Your task to perform on an android device: Is it going to rain this weekend? Image 0: 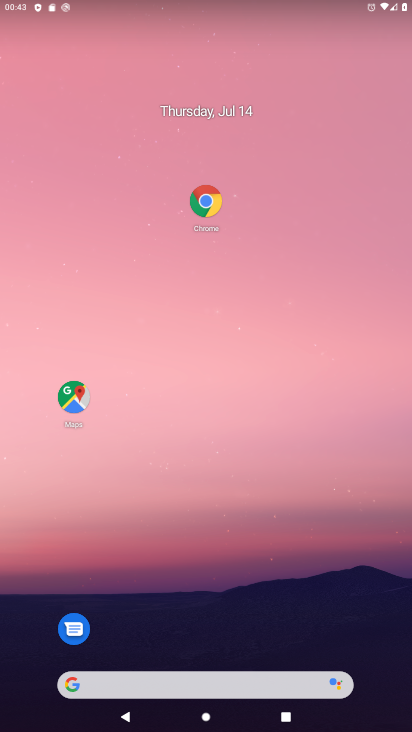
Step 0: drag from (215, 644) to (167, 45)
Your task to perform on an android device: Is it going to rain this weekend? Image 1: 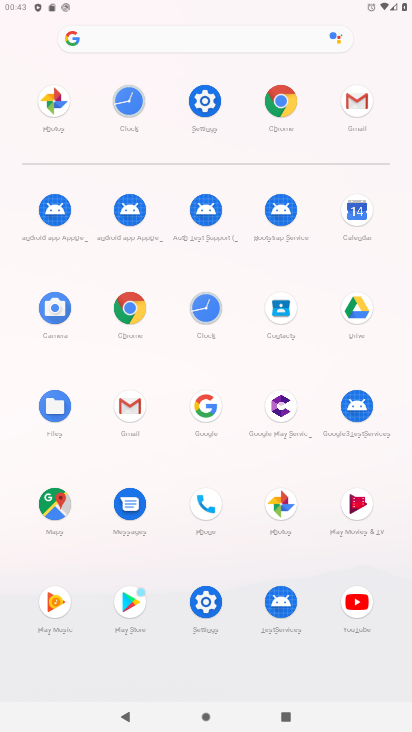
Step 1: click (200, 407)
Your task to perform on an android device: Is it going to rain this weekend? Image 2: 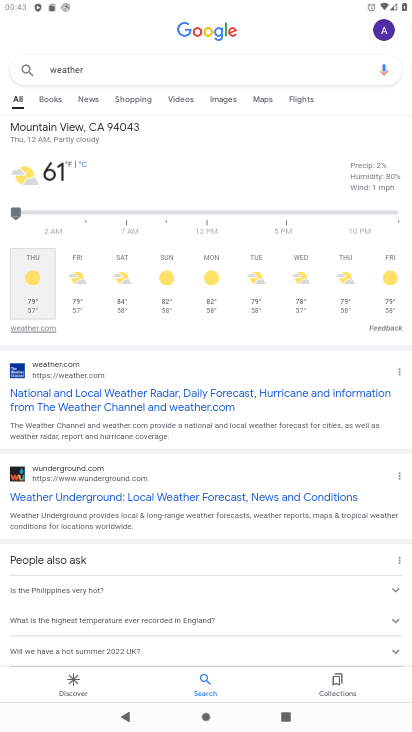
Step 2: click (139, 287)
Your task to perform on an android device: Is it going to rain this weekend? Image 3: 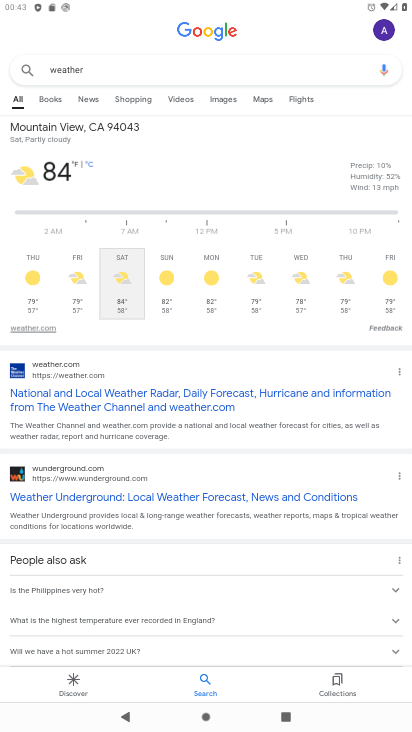
Step 3: task complete